Your task to perform on an android device: turn on location history Image 0: 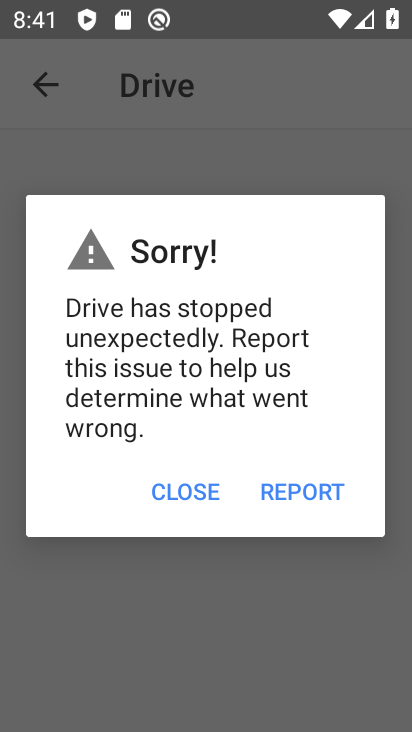
Step 0: press home button
Your task to perform on an android device: turn on location history Image 1: 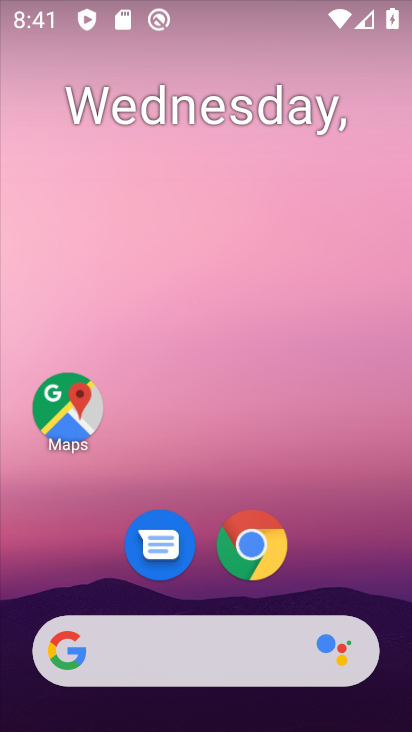
Step 1: click (69, 421)
Your task to perform on an android device: turn on location history Image 2: 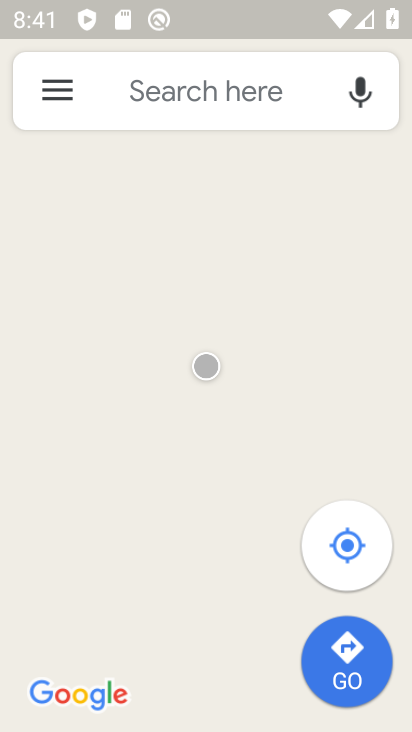
Step 2: click (59, 90)
Your task to perform on an android device: turn on location history Image 3: 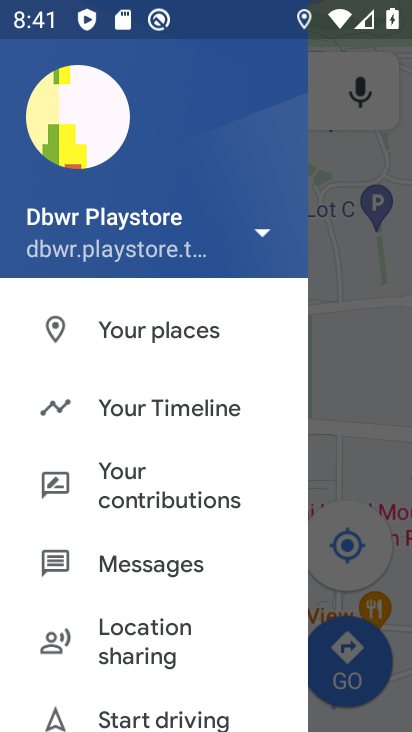
Step 3: click (171, 411)
Your task to perform on an android device: turn on location history Image 4: 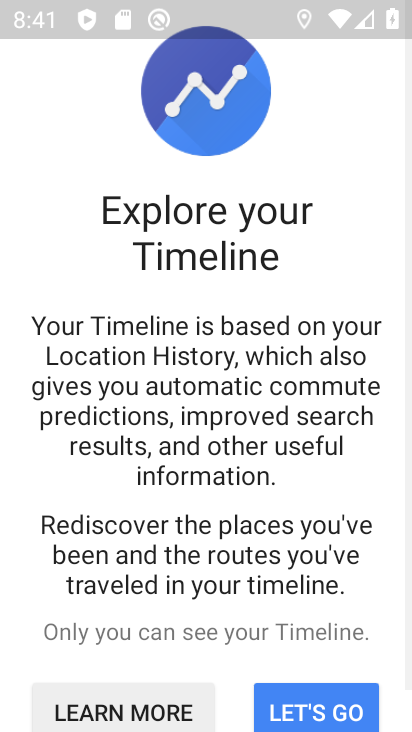
Step 4: drag from (264, 591) to (385, 178)
Your task to perform on an android device: turn on location history Image 5: 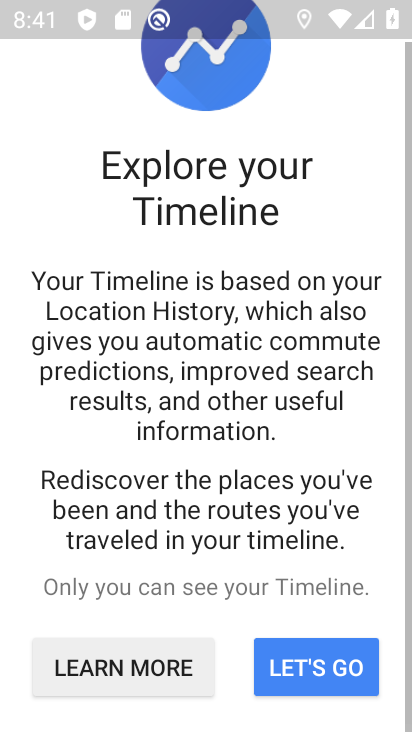
Step 5: click (311, 664)
Your task to perform on an android device: turn on location history Image 6: 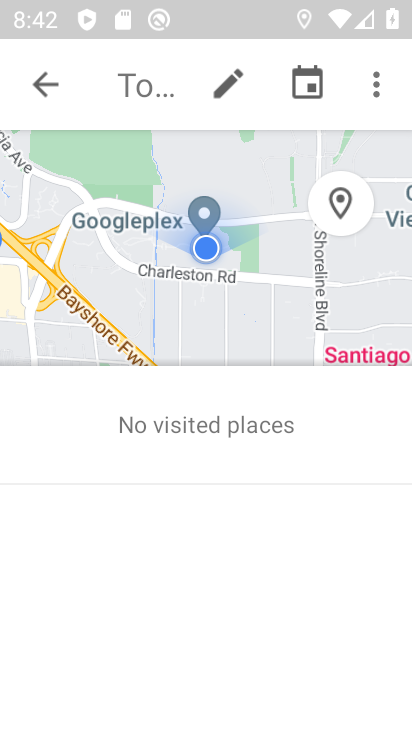
Step 6: click (379, 84)
Your task to perform on an android device: turn on location history Image 7: 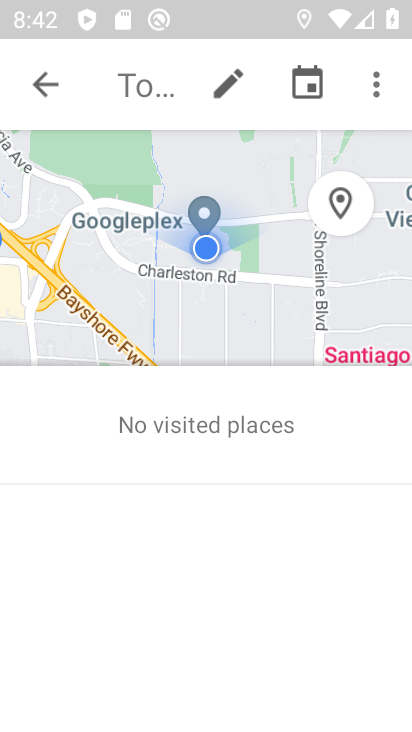
Step 7: click (372, 87)
Your task to perform on an android device: turn on location history Image 8: 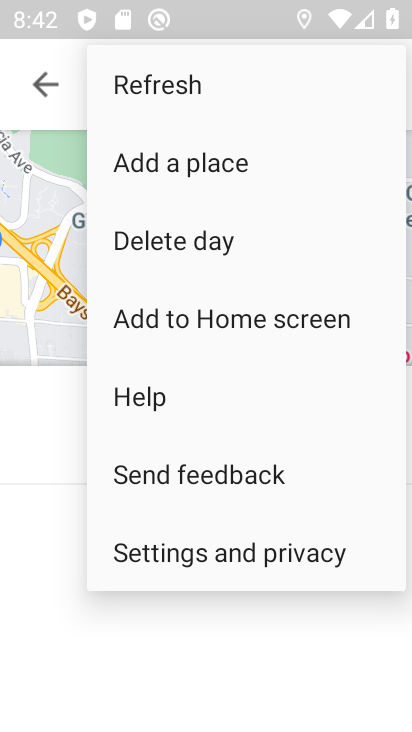
Step 8: click (211, 558)
Your task to perform on an android device: turn on location history Image 9: 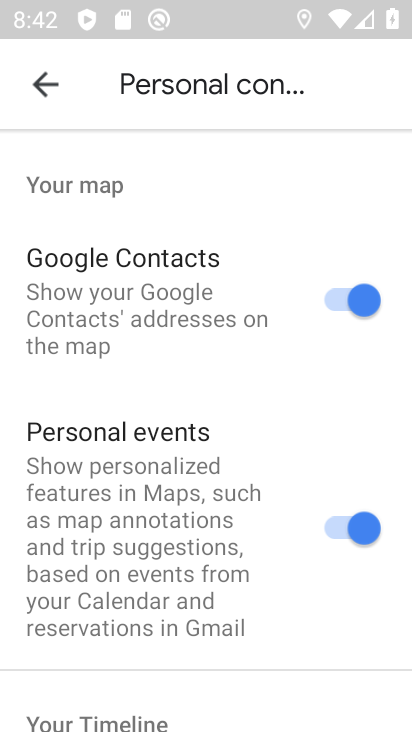
Step 9: drag from (156, 586) to (315, 257)
Your task to perform on an android device: turn on location history Image 10: 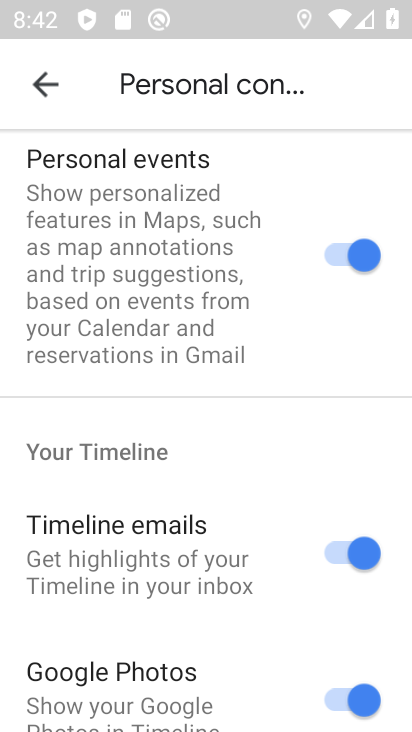
Step 10: drag from (186, 633) to (311, 136)
Your task to perform on an android device: turn on location history Image 11: 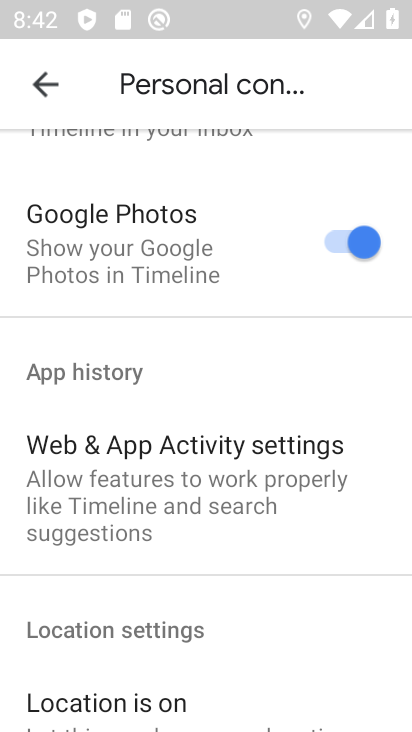
Step 11: drag from (204, 573) to (290, 212)
Your task to perform on an android device: turn on location history Image 12: 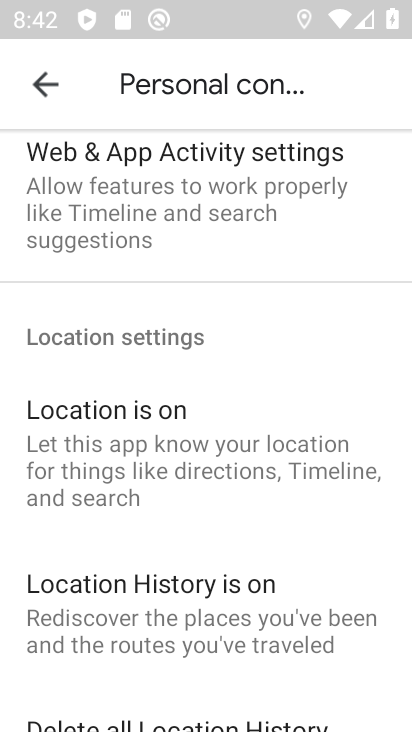
Step 12: click (176, 594)
Your task to perform on an android device: turn on location history Image 13: 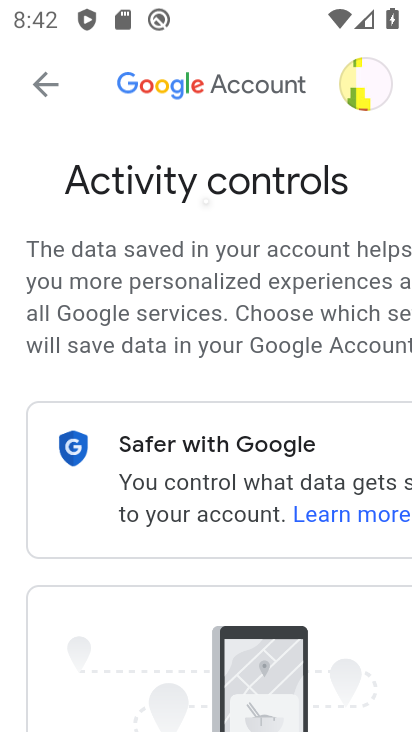
Step 13: drag from (117, 661) to (261, 196)
Your task to perform on an android device: turn on location history Image 14: 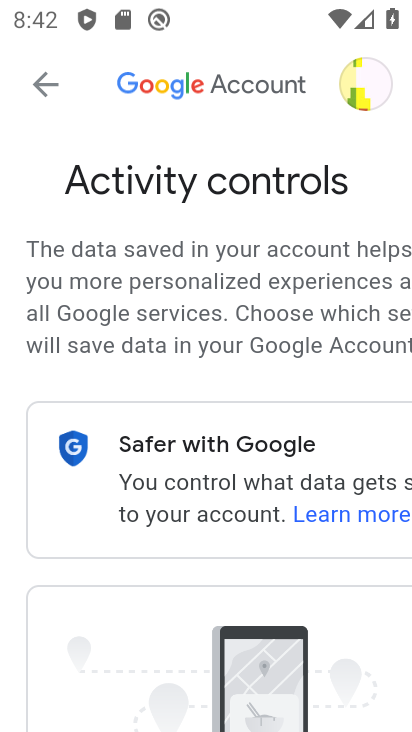
Step 14: drag from (140, 643) to (365, 97)
Your task to perform on an android device: turn on location history Image 15: 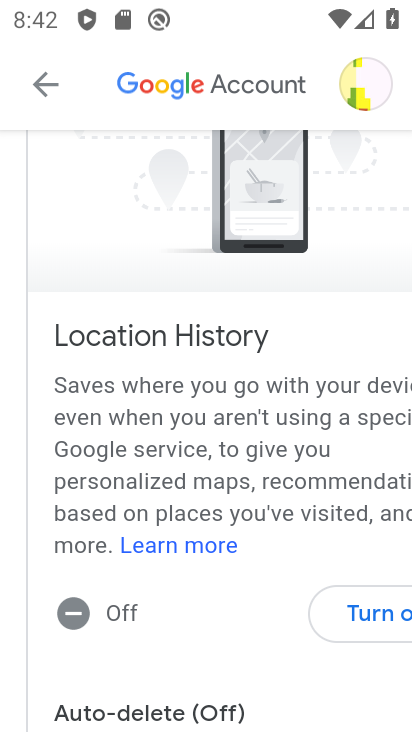
Step 15: drag from (246, 584) to (333, 245)
Your task to perform on an android device: turn on location history Image 16: 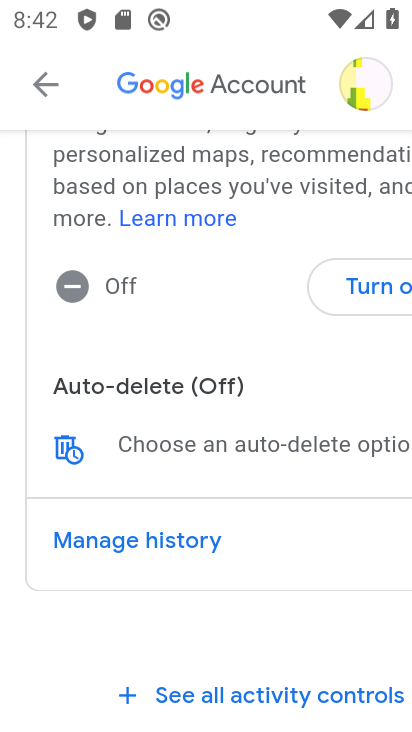
Step 16: click (373, 287)
Your task to perform on an android device: turn on location history Image 17: 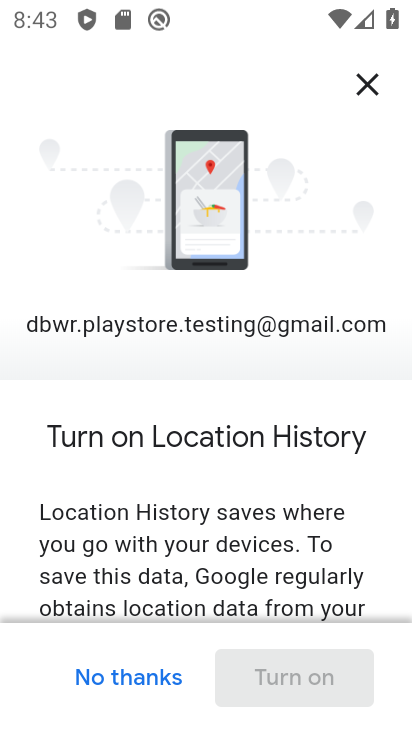
Step 17: drag from (180, 541) to (329, 112)
Your task to perform on an android device: turn on location history Image 18: 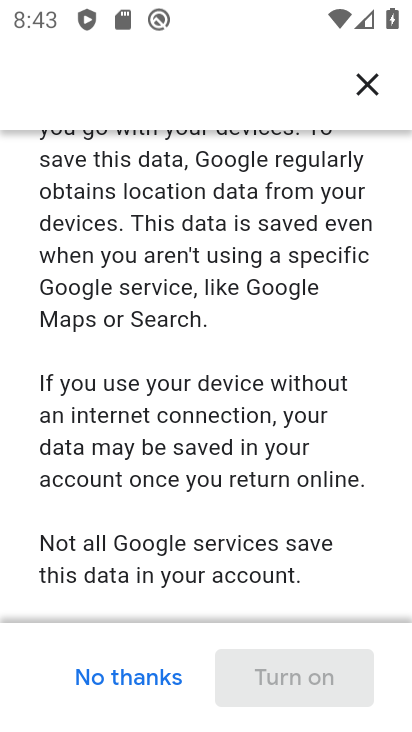
Step 18: drag from (230, 576) to (385, 64)
Your task to perform on an android device: turn on location history Image 19: 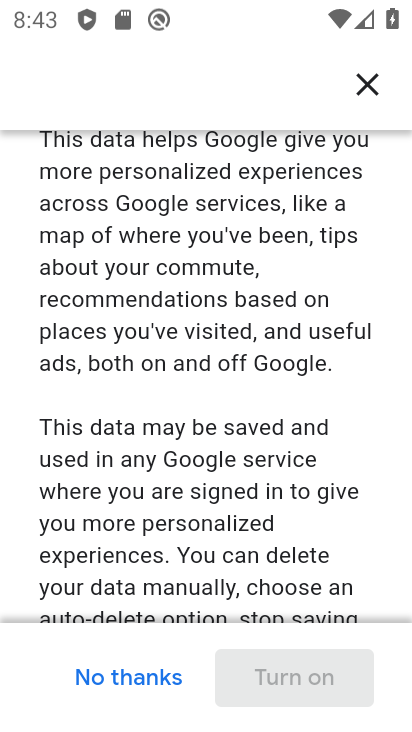
Step 19: drag from (186, 595) to (370, 191)
Your task to perform on an android device: turn on location history Image 20: 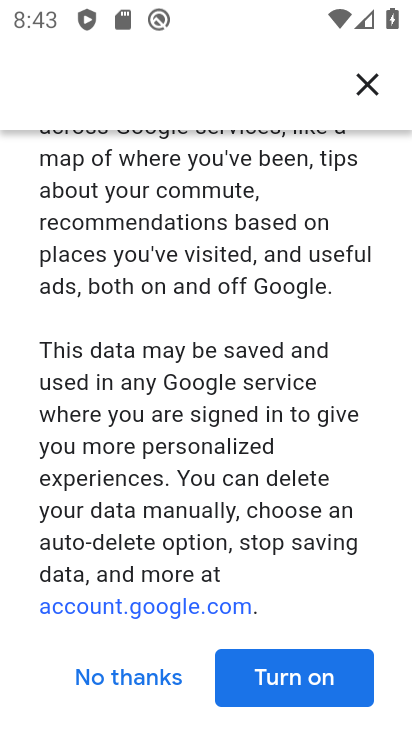
Step 20: click (294, 679)
Your task to perform on an android device: turn on location history Image 21: 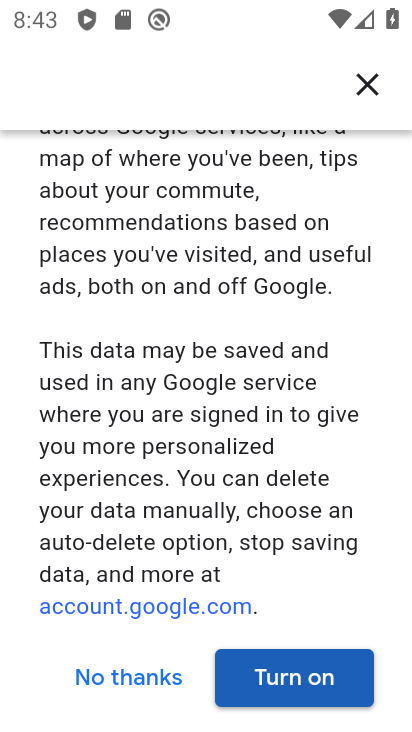
Step 21: click (297, 678)
Your task to perform on an android device: turn on location history Image 22: 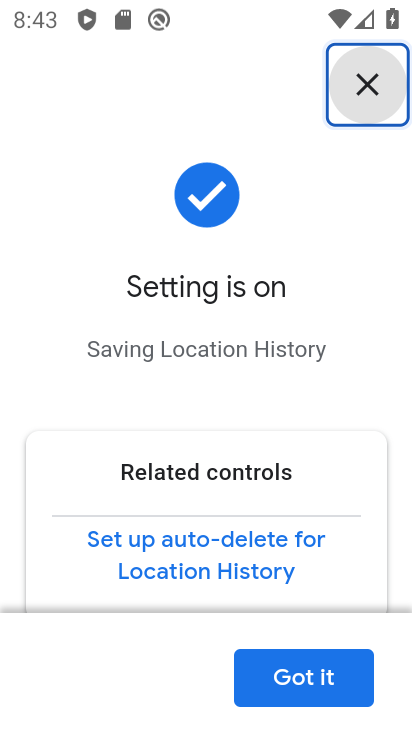
Step 22: click (297, 678)
Your task to perform on an android device: turn on location history Image 23: 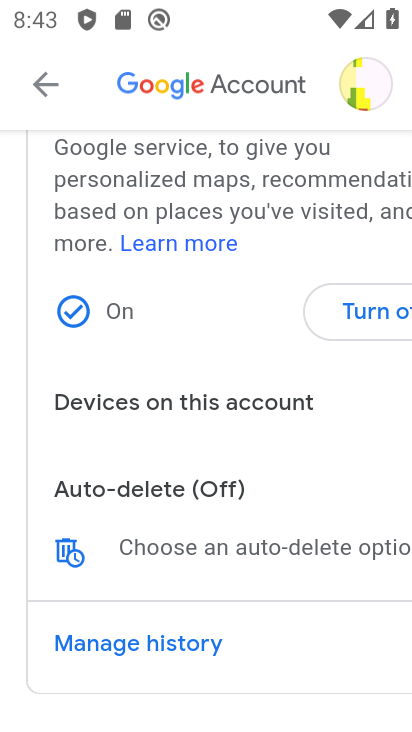
Step 23: task complete